Your task to perform on an android device: Open battery settings Image 0: 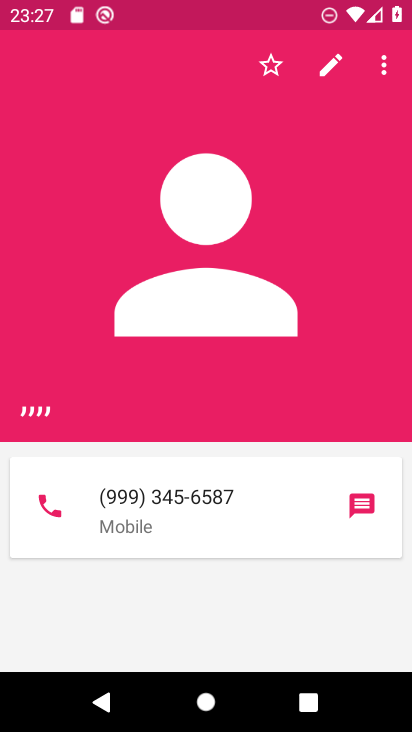
Step 0: press home button
Your task to perform on an android device: Open battery settings Image 1: 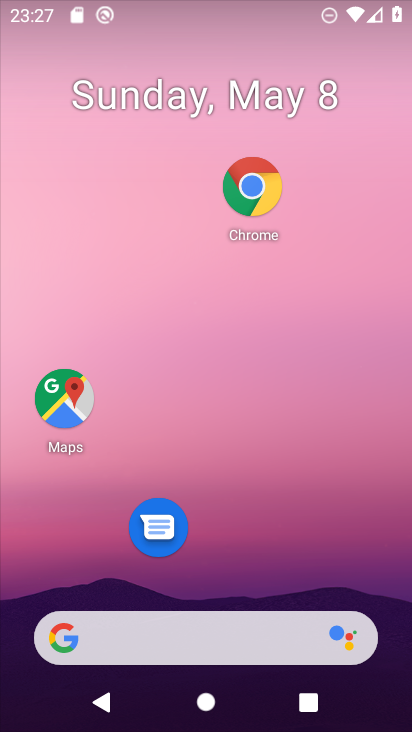
Step 1: drag from (243, 352) to (257, 253)
Your task to perform on an android device: Open battery settings Image 2: 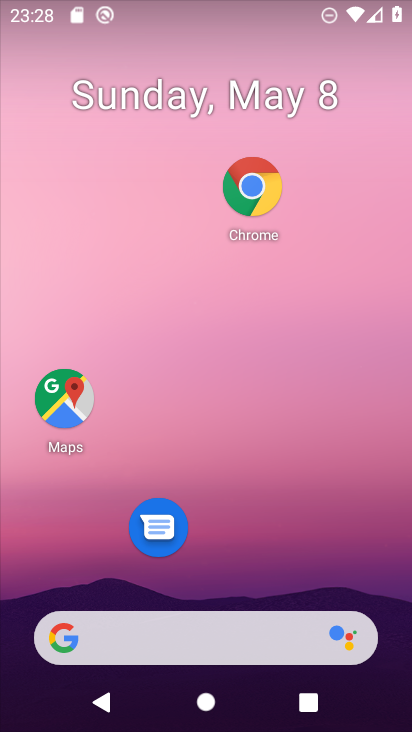
Step 2: drag from (253, 462) to (250, 268)
Your task to perform on an android device: Open battery settings Image 3: 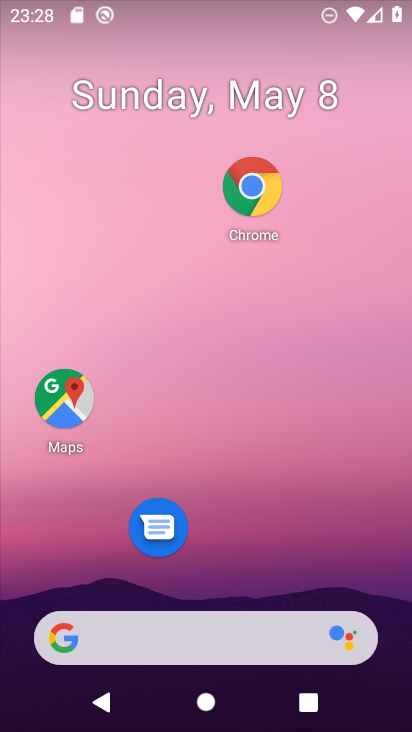
Step 3: drag from (344, 382) to (335, 234)
Your task to perform on an android device: Open battery settings Image 4: 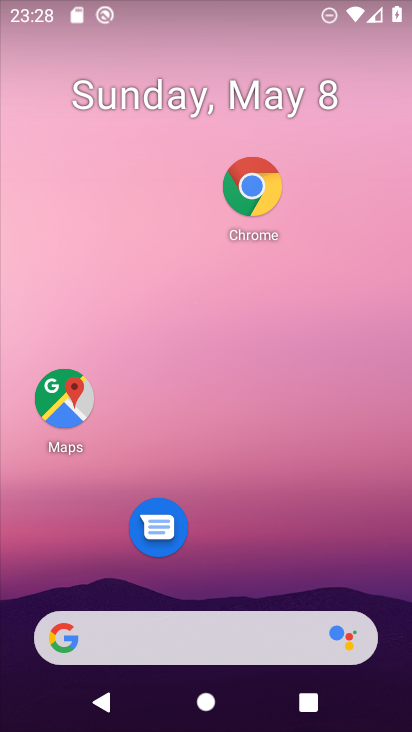
Step 4: drag from (276, 507) to (322, 3)
Your task to perform on an android device: Open battery settings Image 5: 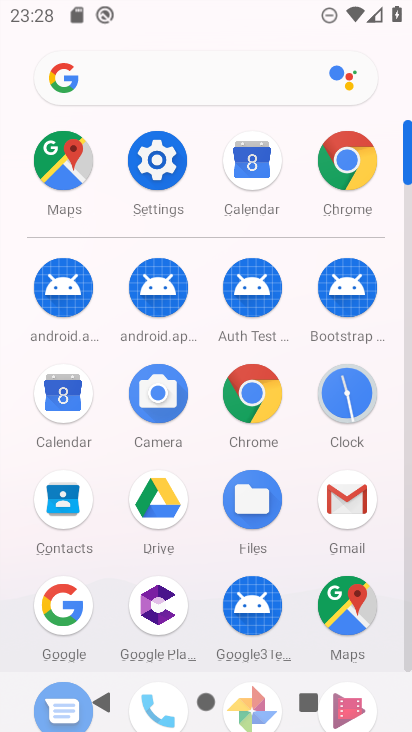
Step 5: click (161, 163)
Your task to perform on an android device: Open battery settings Image 6: 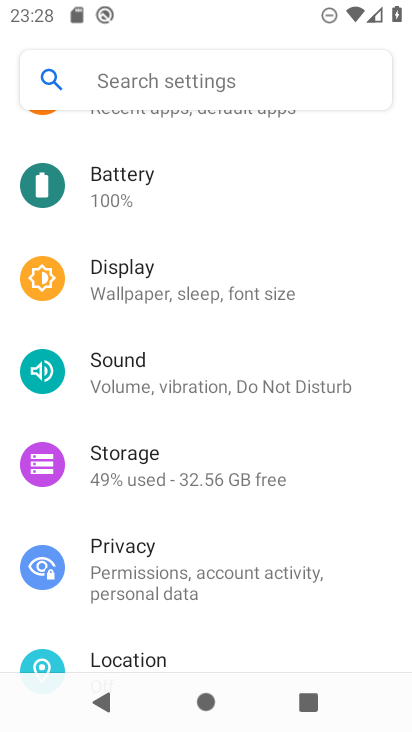
Step 6: click (166, 185)
Your task to perform on an android device: Open battery settings Image 7: 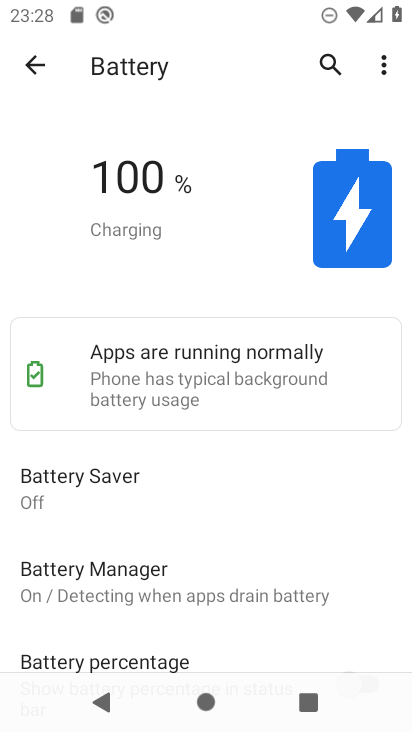
Step 7: task complete